Your task to perform on an android device: open wifi settings Image 0: 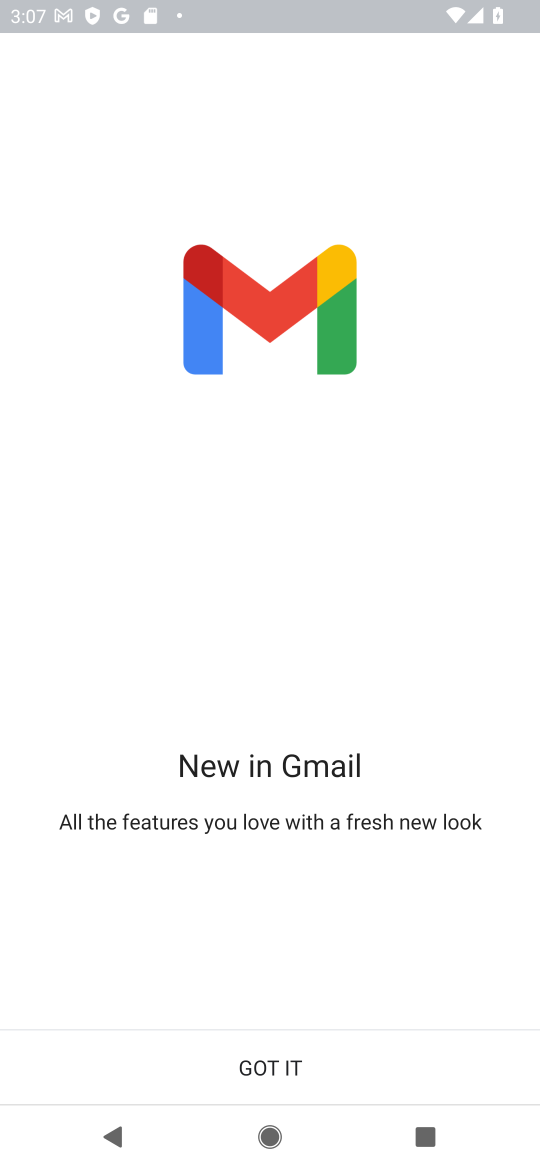
Step 0: press back button
Your task to perform on an android device: open wifi settings Image 1: 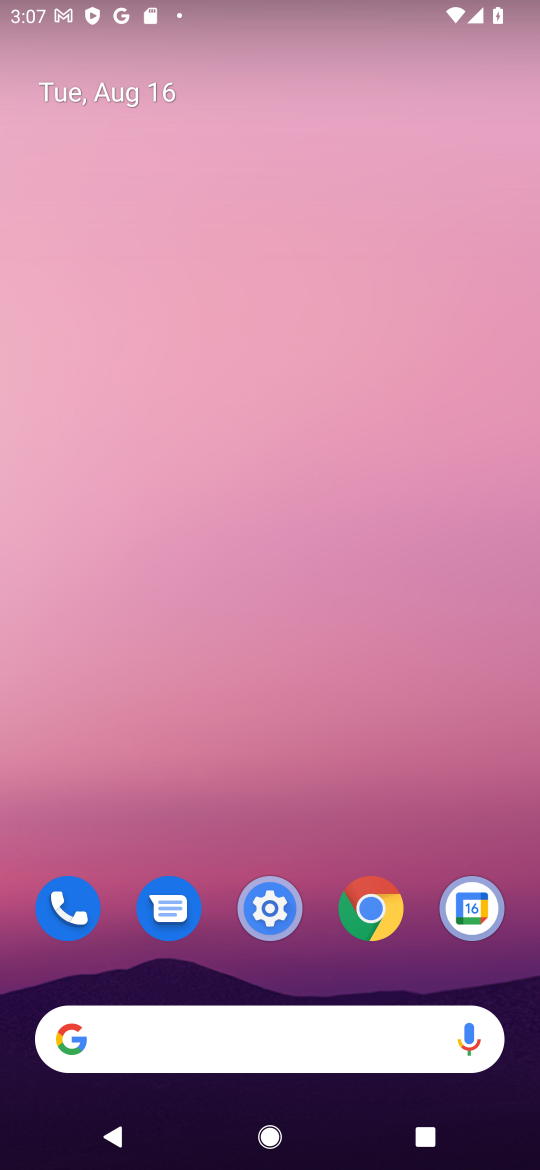
Step 1: drag from (116, 7) to (263, 755)
Your task to perform on an android device: open wifi settings Image 2: 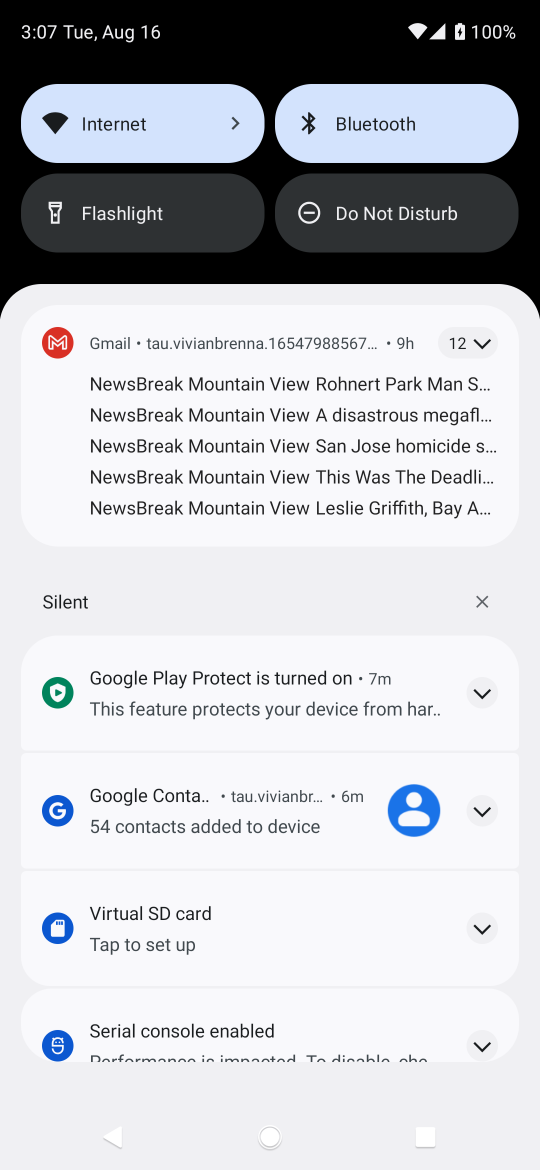
Step 2: click (150, 124)
Your task to perform on an android device: open wifi settings Image 3: 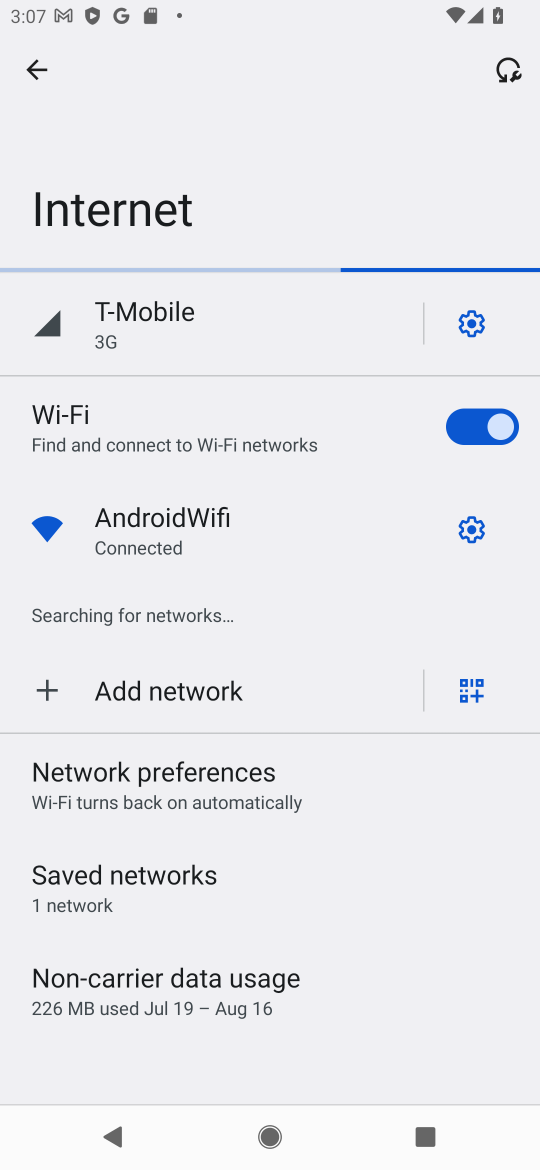
Step 3: task complete